Your task to perform on an android device: open app "Messages" (install if not already installed) Image 0: 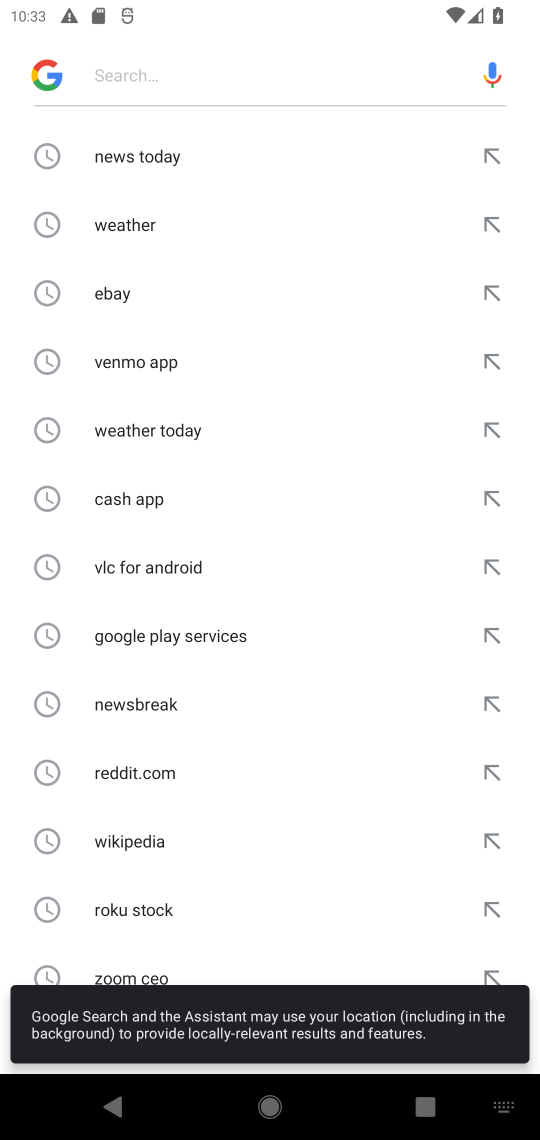
Step 0: press home button
Your task to perform on an android device: open app "Messages" (install if not already installed) Image 1: 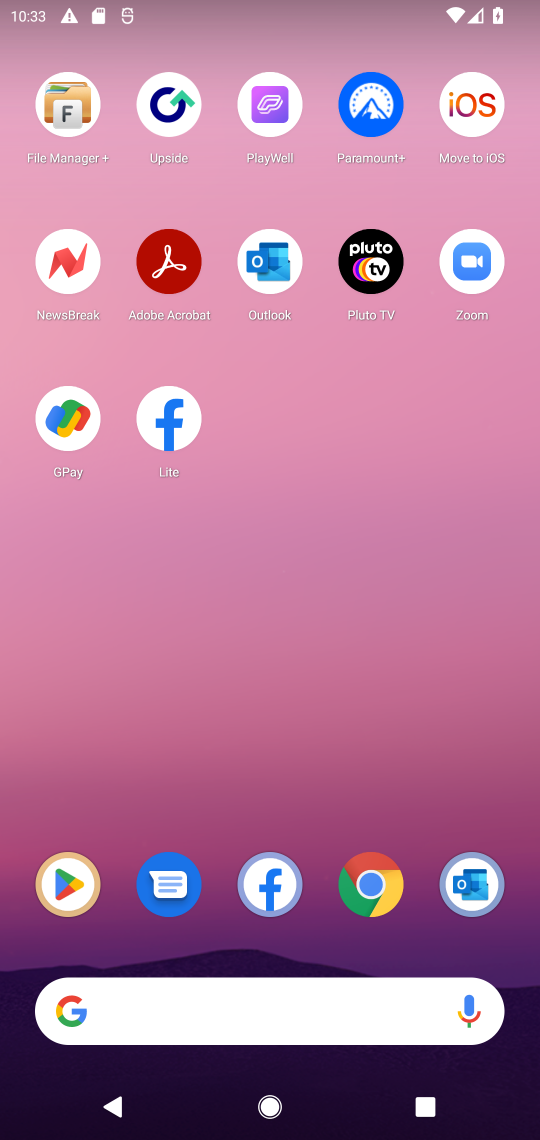
Step 1: click (56, 871)
Your task to perform on an android device: open app "Messages" (install if not already installed) Image 2: 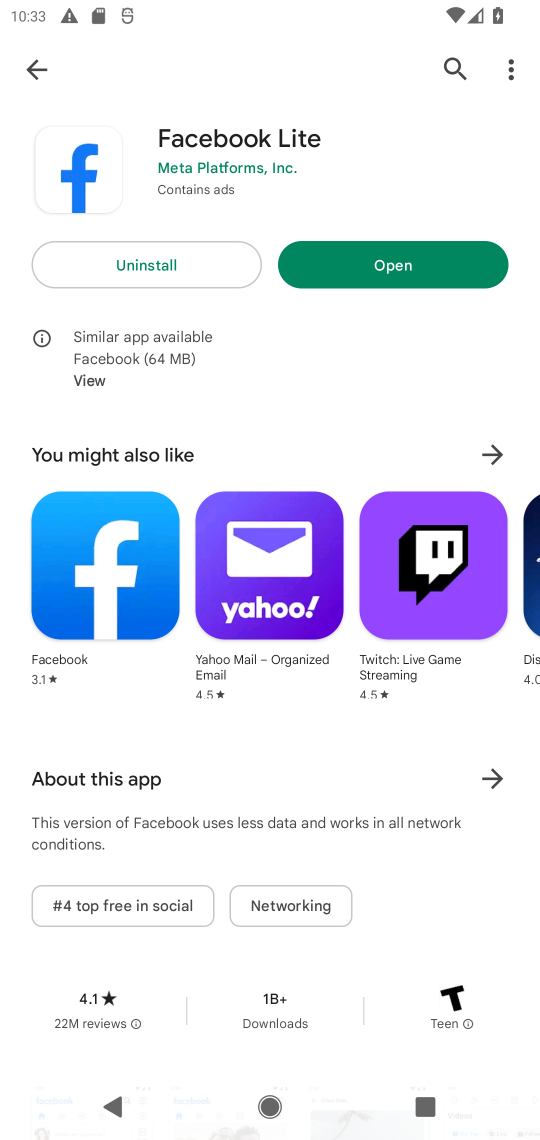
Step 2: click (450, 57)
Your task to perform on an android device: open app "Messages" (install if not already installed) Image 3: 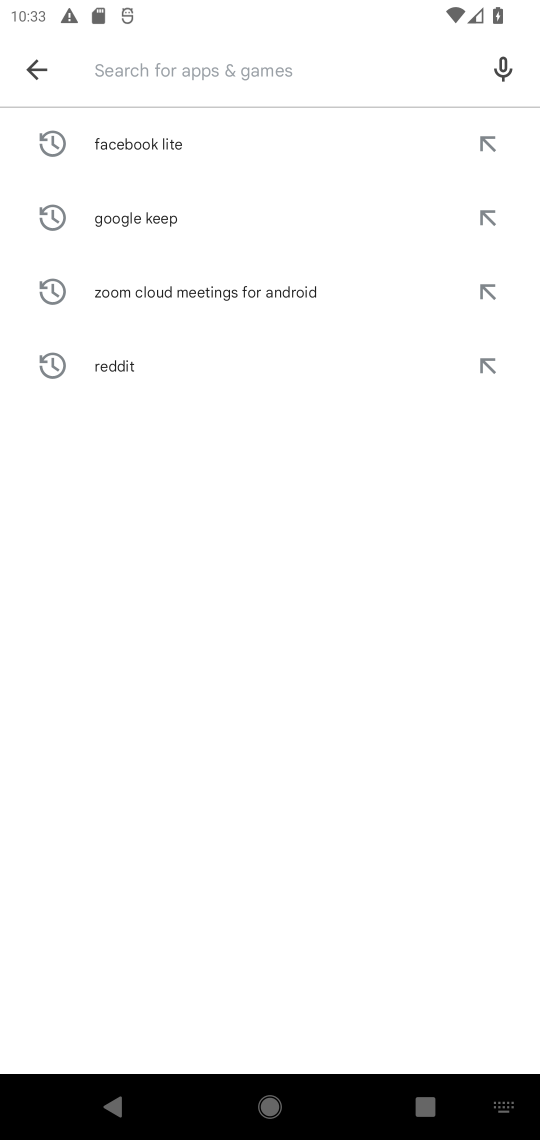
Step 3: type "messages"
Your task to perform on an android device: open app "Messages" (install if not already installed) Image 4: 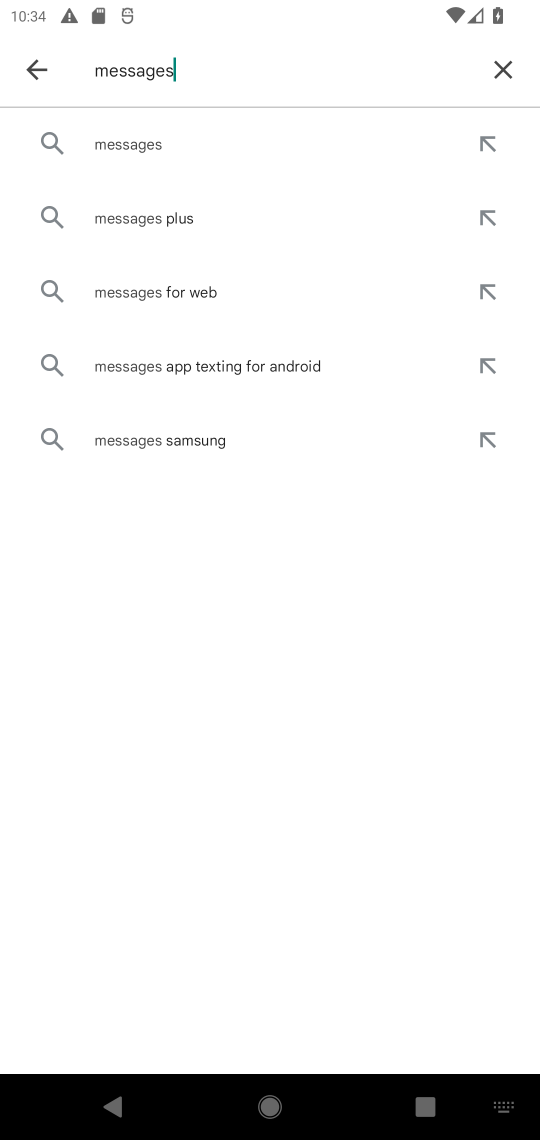
Step 4: click (144, 157)
Your task to perform on an android device: open app "Messages" (install if not already installed) Image 5: 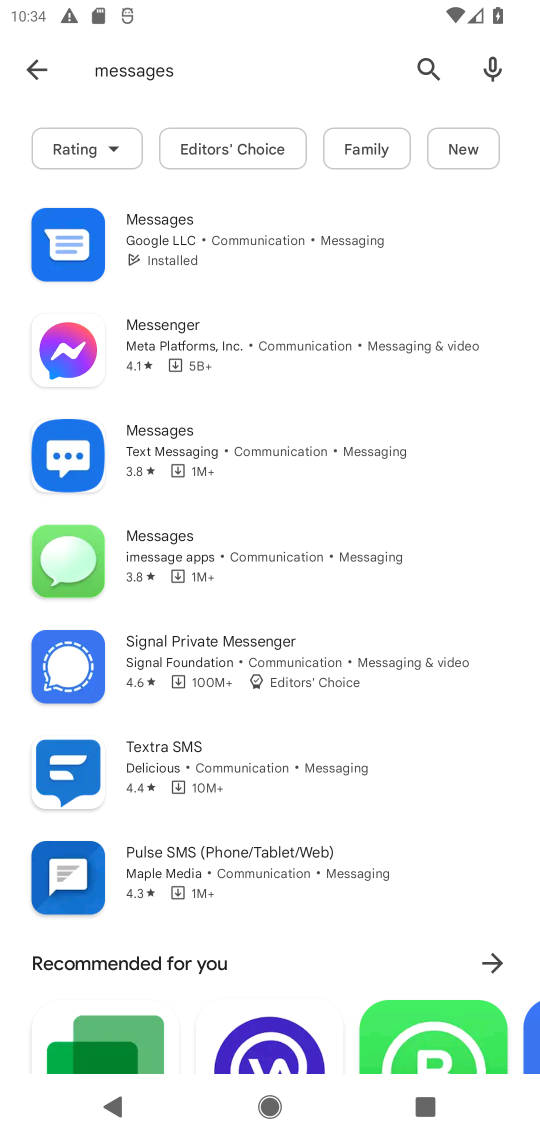
Step 5: click (171, 229)
Your task to perform on an android device: open app "Messages" (install if not already installed) Image 6: 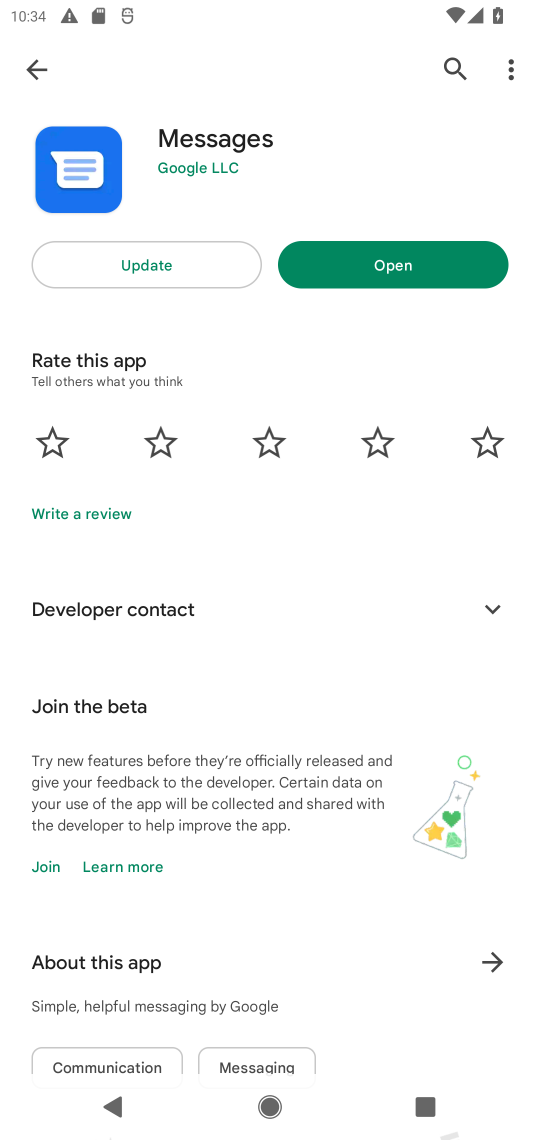
Step 6: click (381, 265)
Your task to perform on an android device: open app "Messages" (install if not already installed) Image 7: 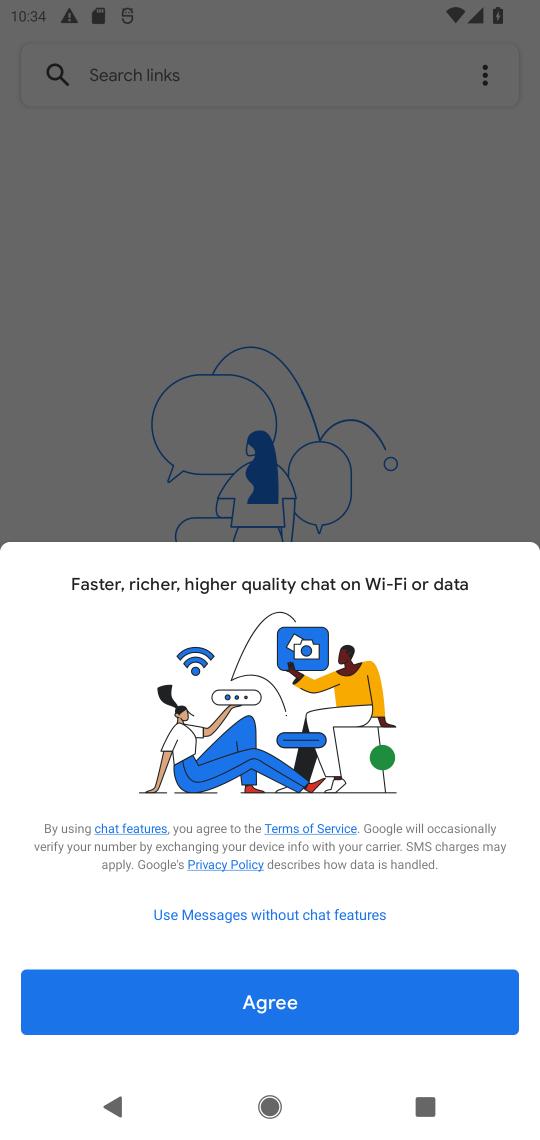
Step 7: task complete